Your task to perform on an android device: Open Reddit.com Image 0: 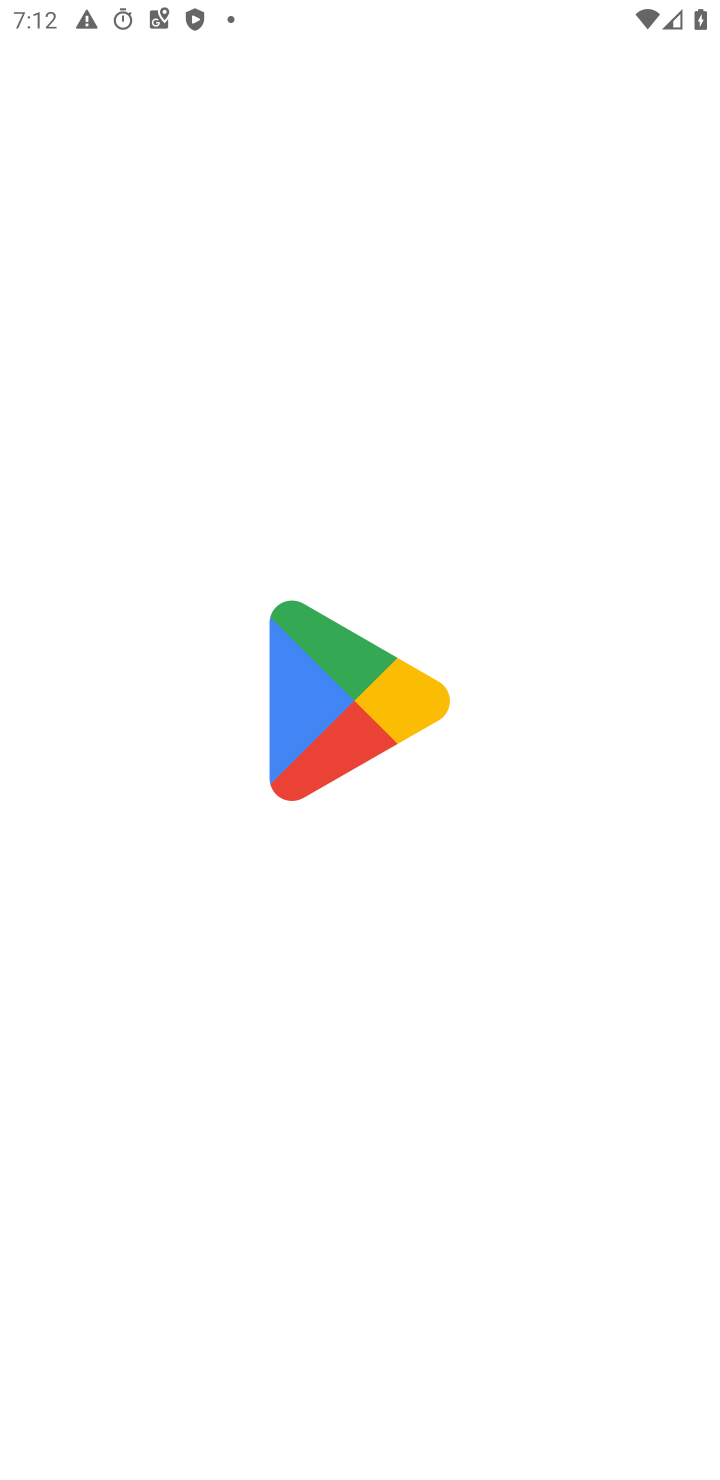
Step 0: press home button
Your task to perform on an android device: Open Reddit.com Image 1: 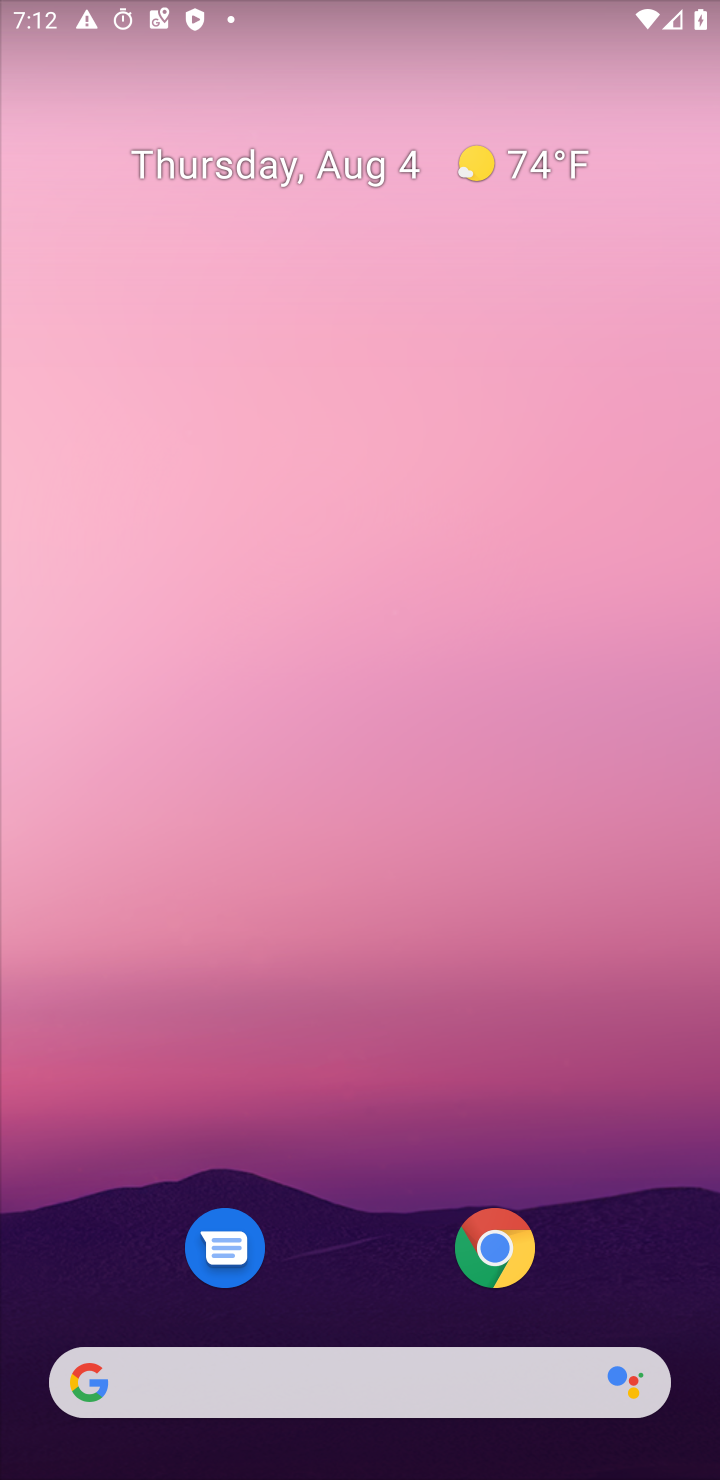
Step 1: drag from (406, 1379) to (506, 174)
Your task to perform on an android device: Open Reddit.com Image 2: 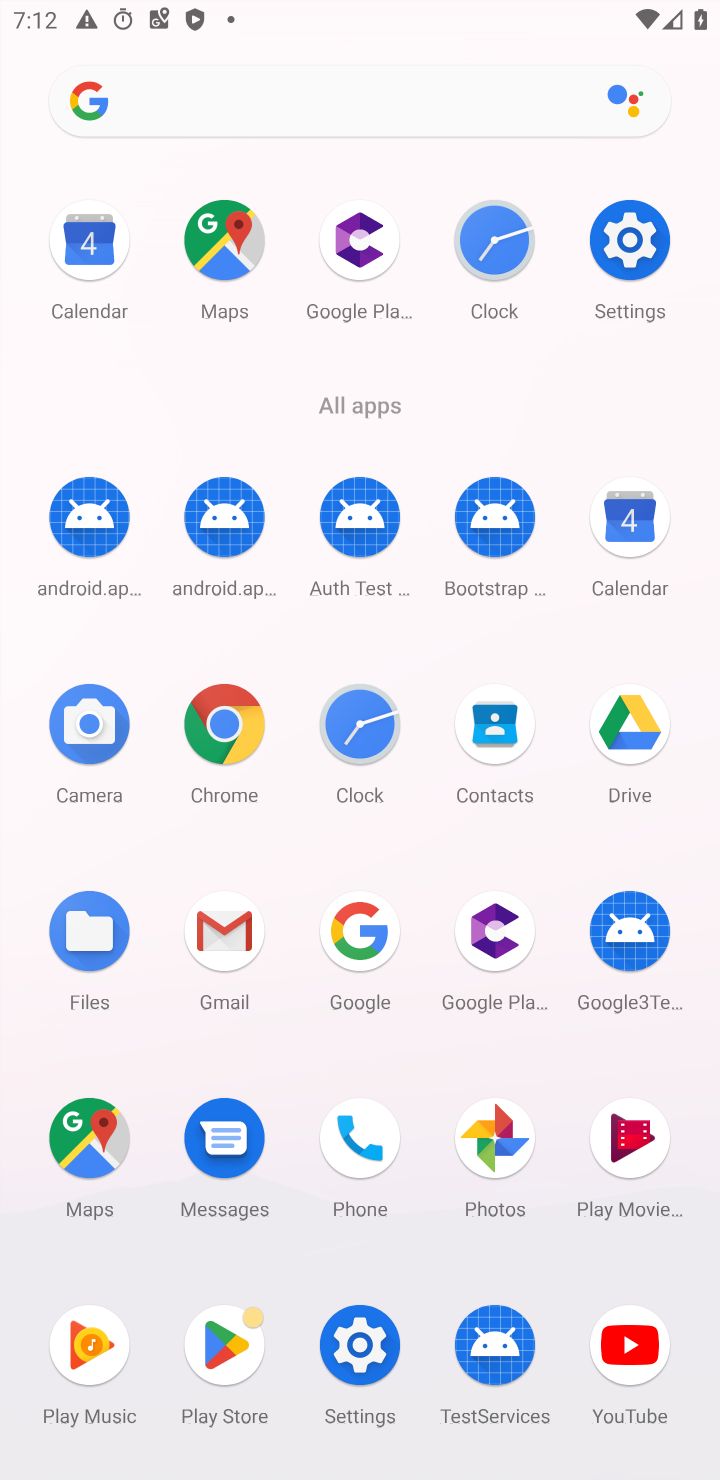
Step 2: click (606, 240)
Your task to perform on an android device: Open Reddit.com Image 3: 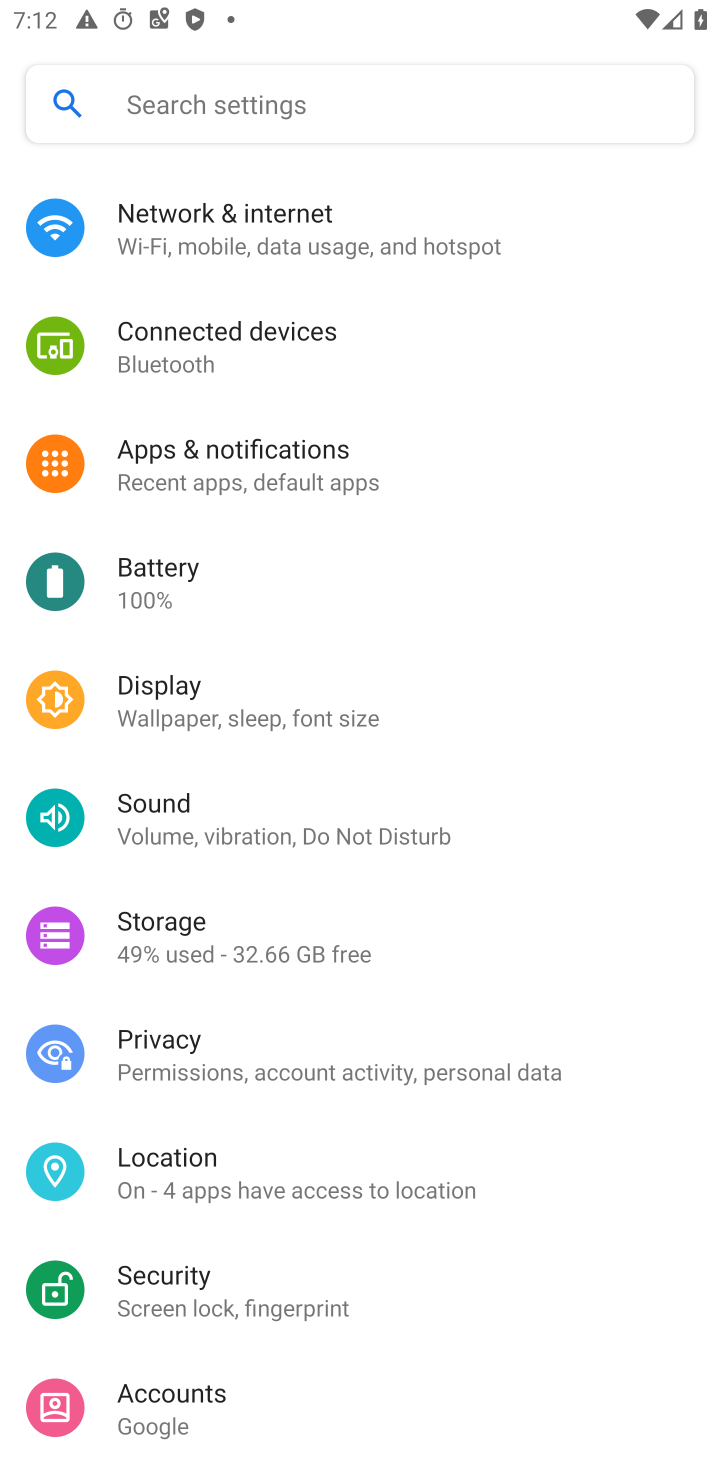
Step 3: press home button
Your task to perform on an android device: Open Reddit.com Image 4: 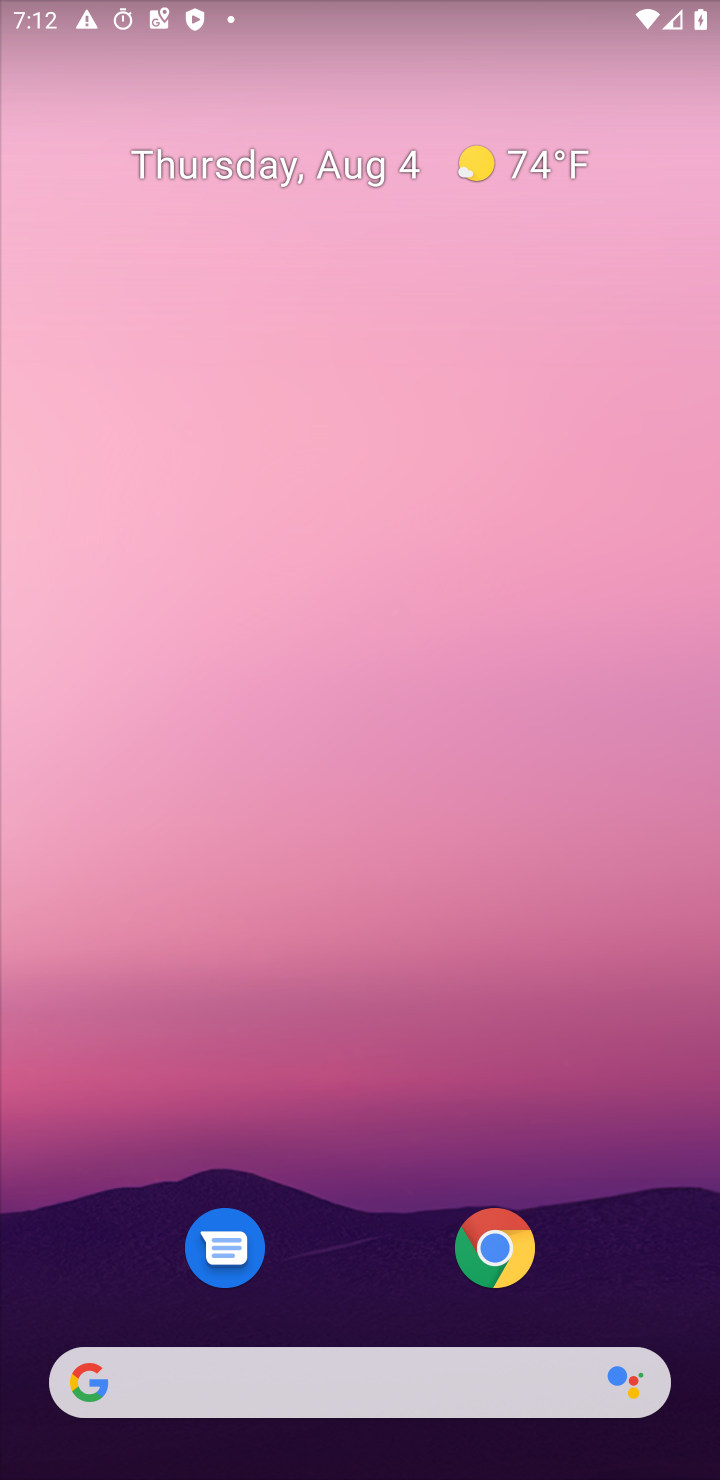
Step 4: drag from (447, 1056) to (446, 278)
Your task to perform on an android device: Open Reddit.com Image 5: 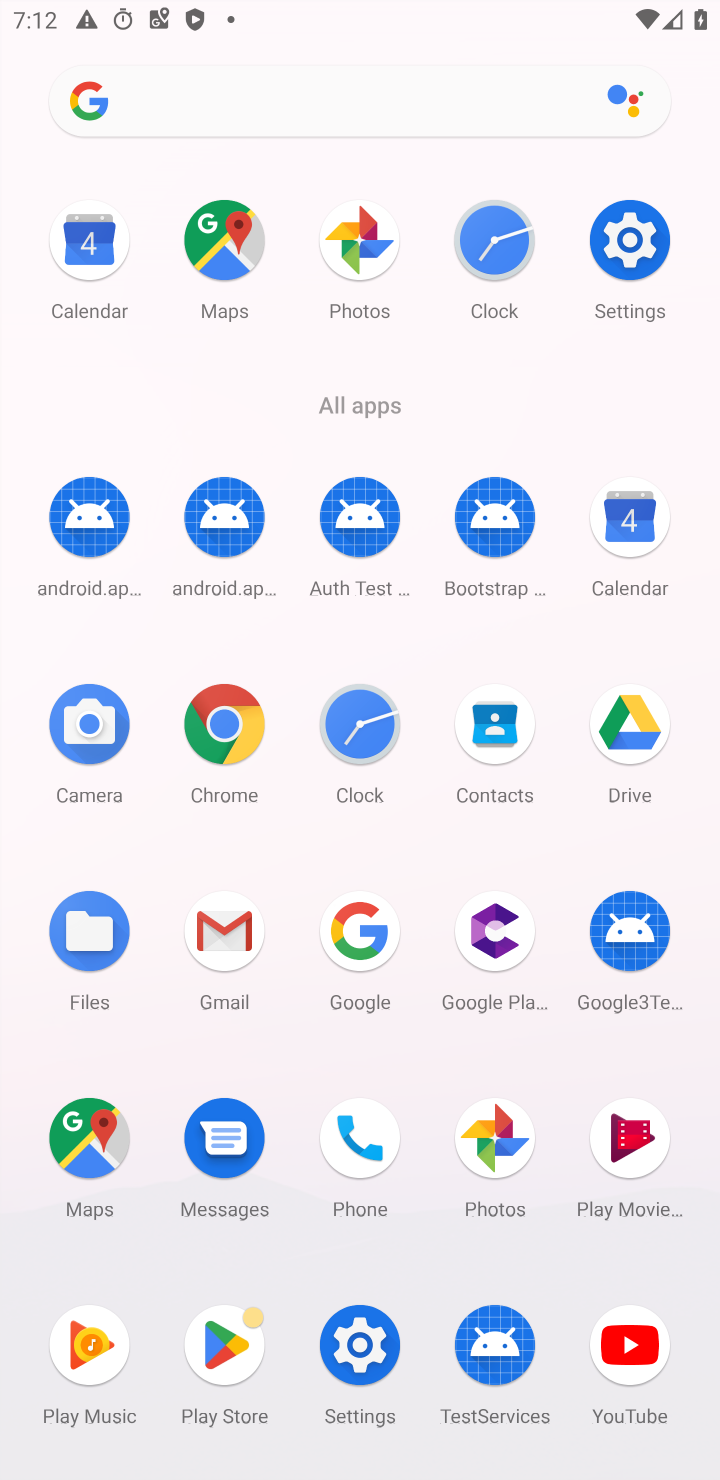
Step 5: click (219, 708)
Your task to perform on an android device: Open Reddit.com Image 6: 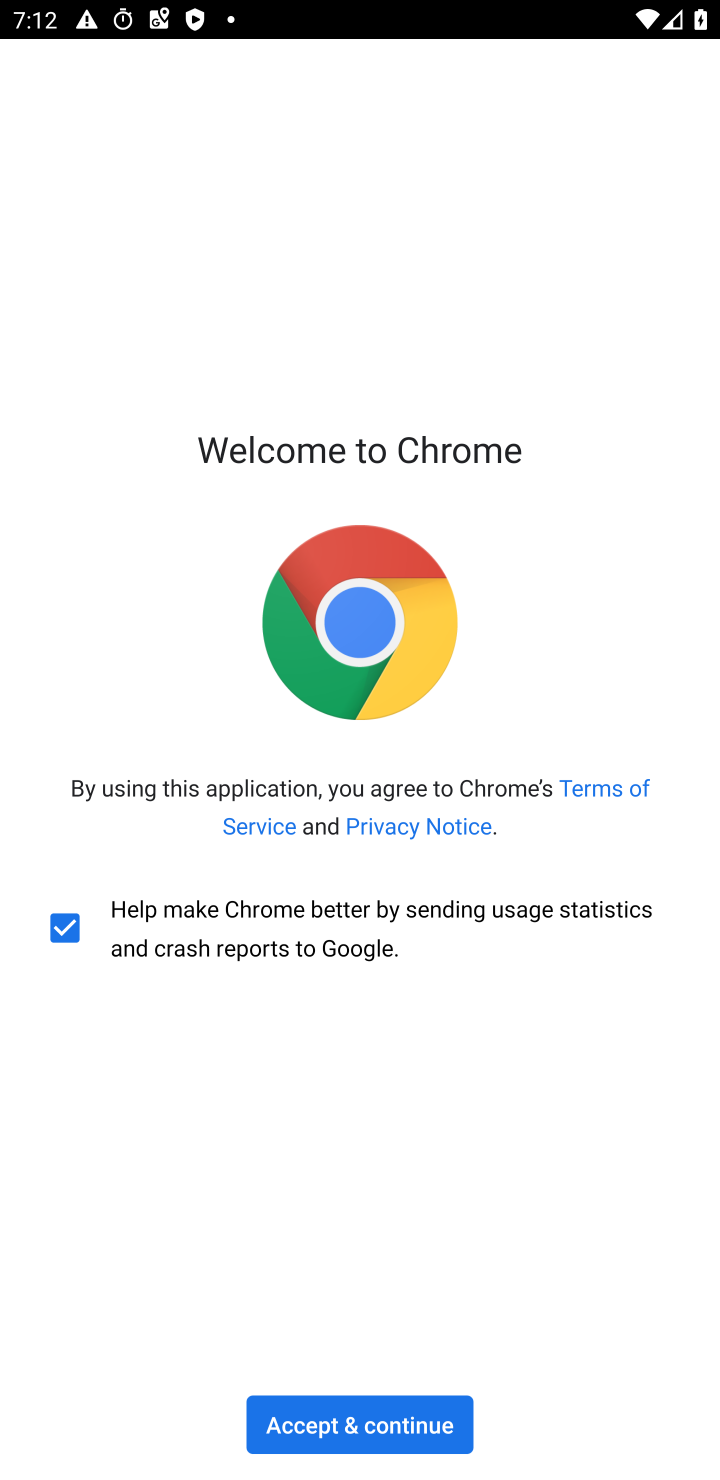
Step 6: click (330, 1400)
Your task to perform on an android device: Open Reddit.com Image 7: 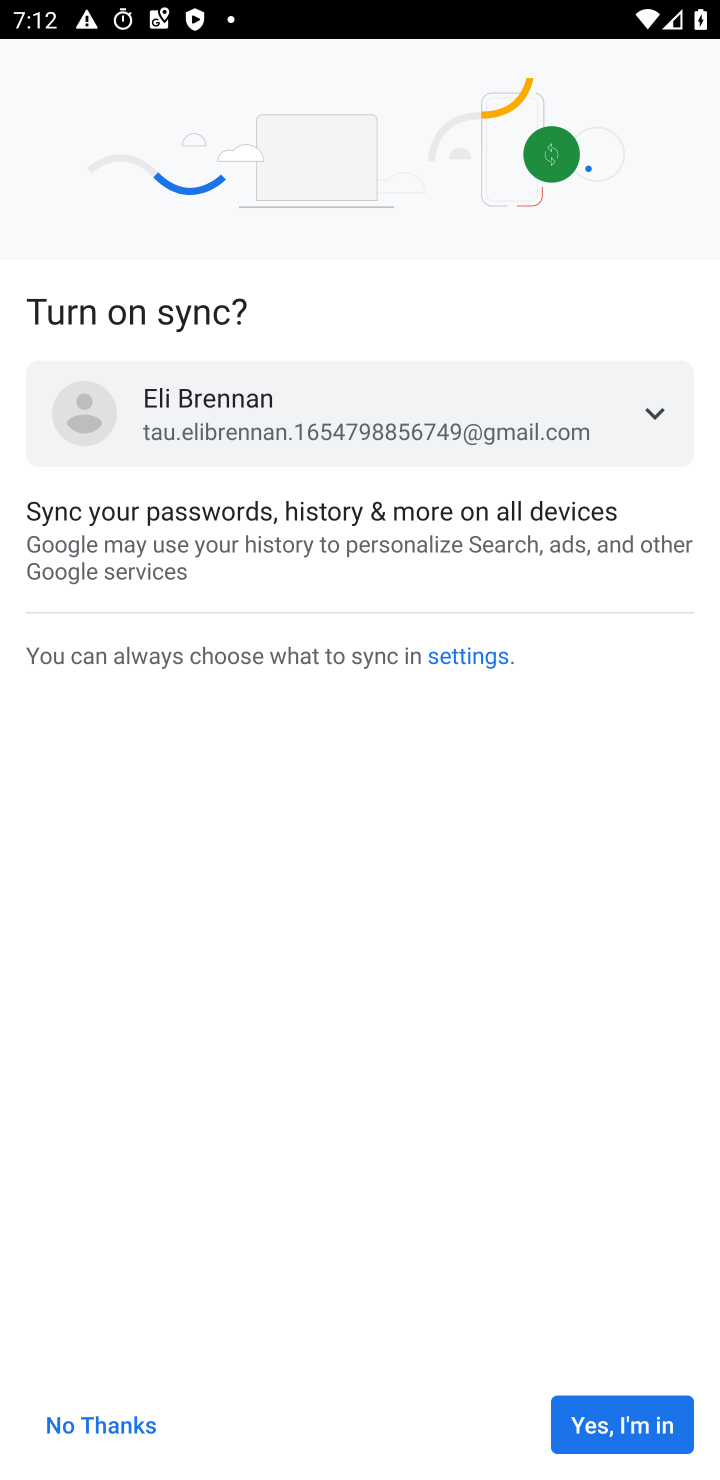
Step 7: click (618, 1417)
Your task to perform on an android device: Open Reddit.com Image 8: 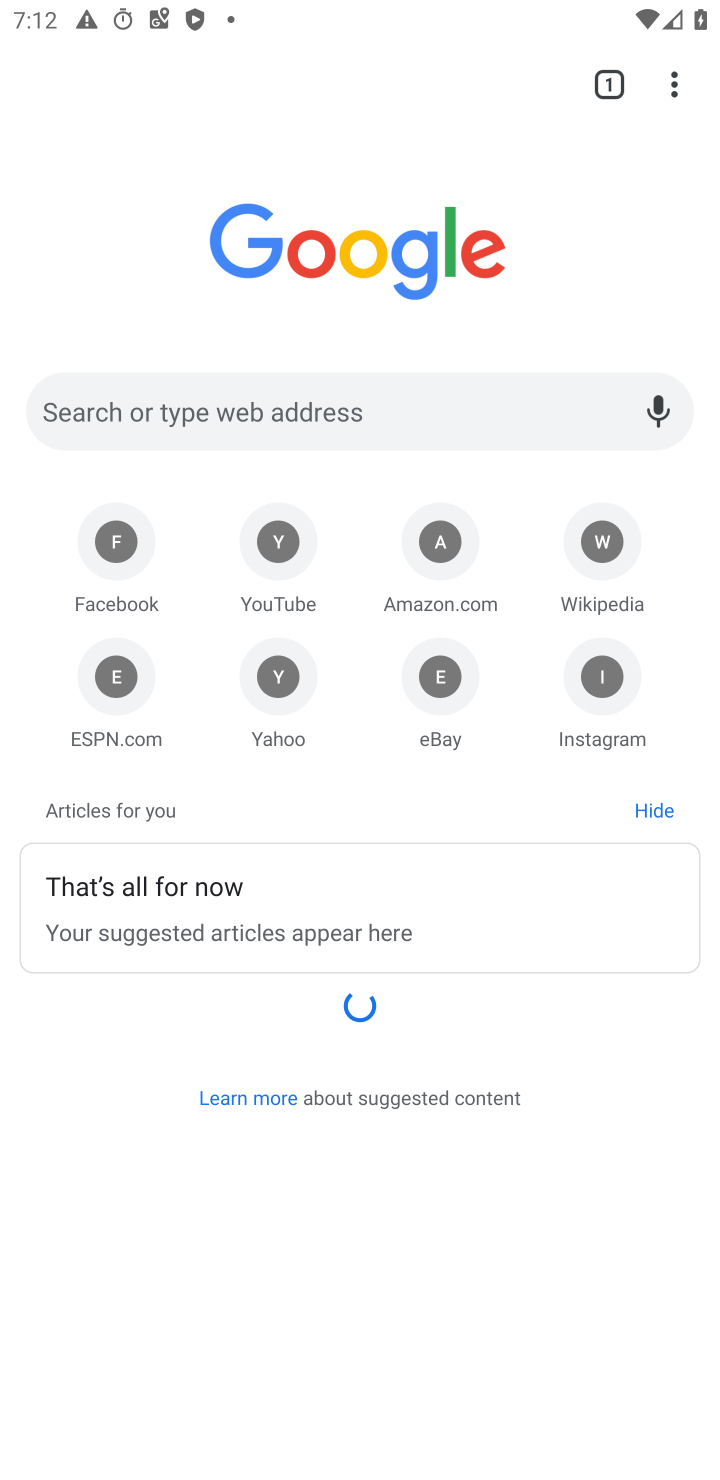
Step 8: click (295, 391)
Your task to perform on an android device: Open Reddit.com Image 9: 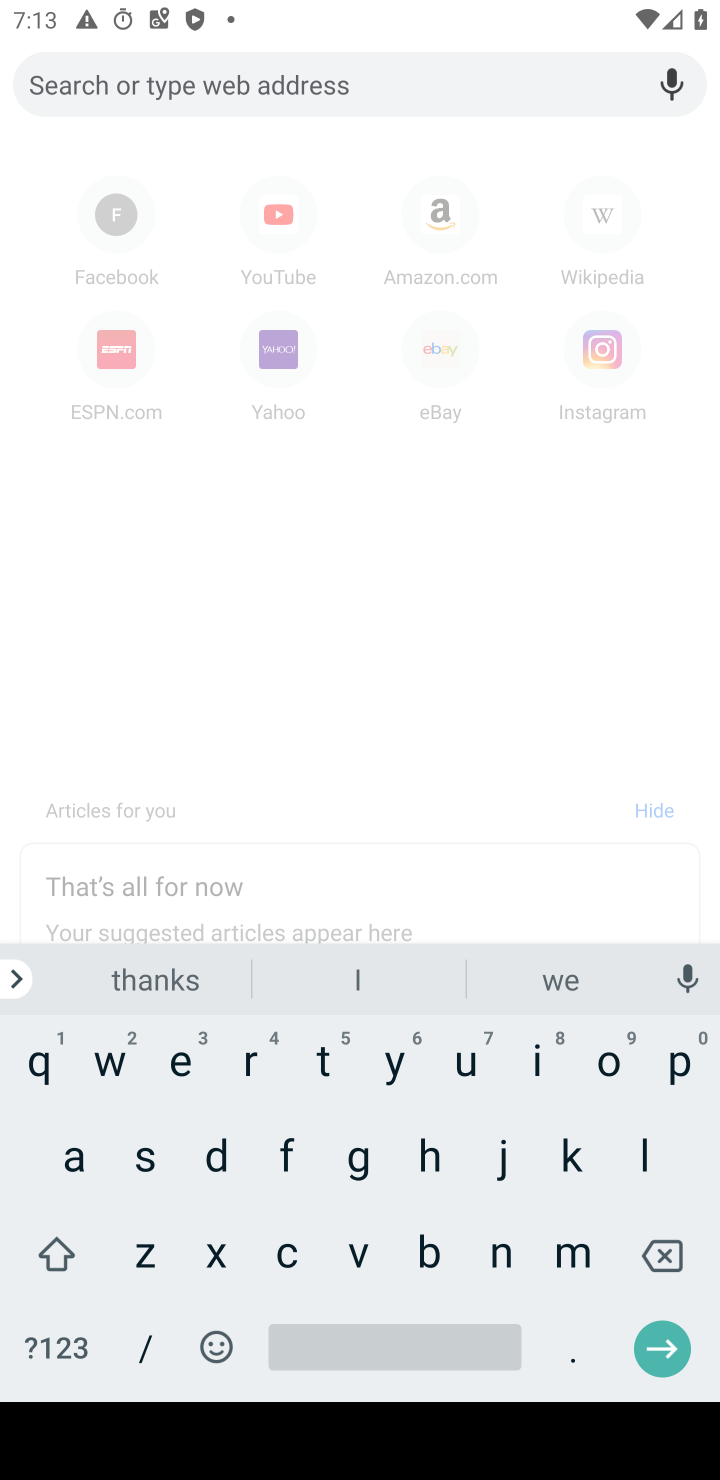
Step 9: click (250, 1067)
Your task to perform on an android device: Open Reddit.com Image 10: 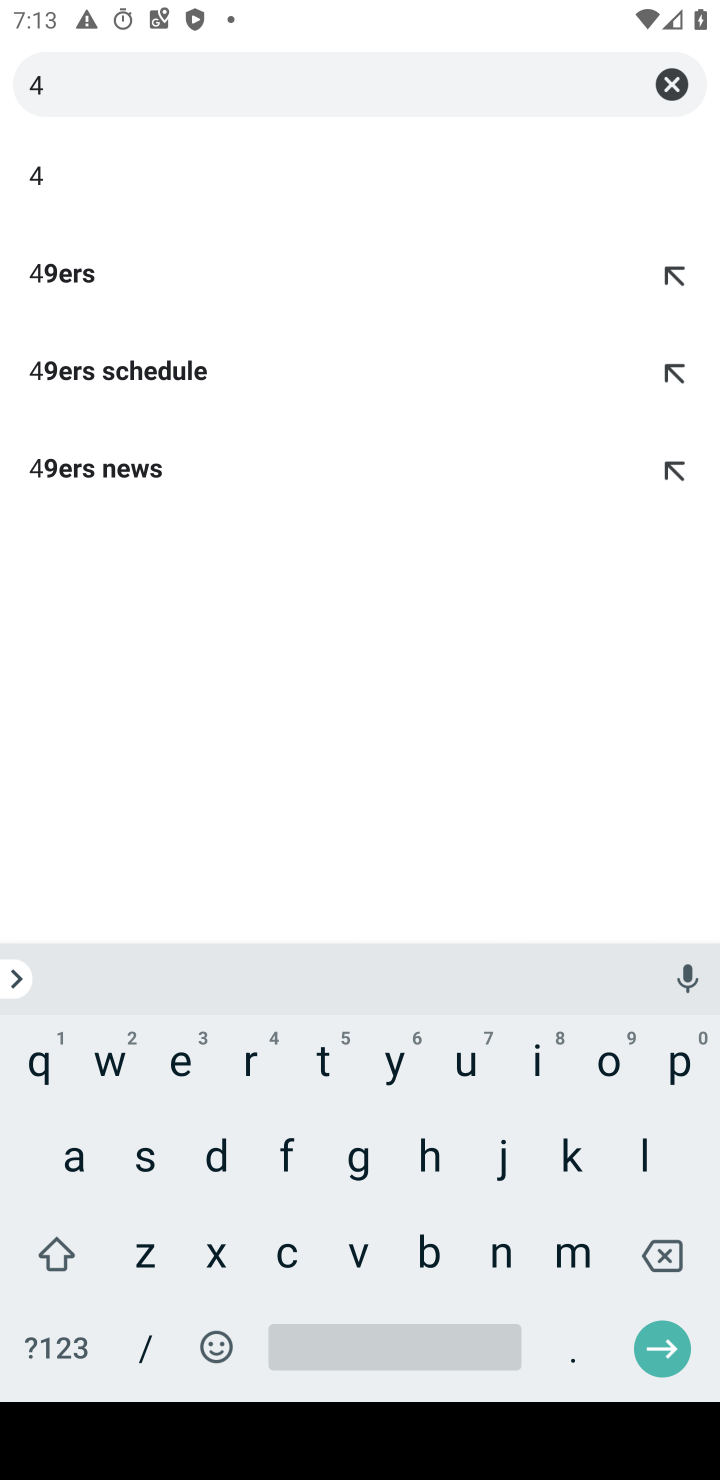
Step 10: click (675, 1265)
Your task to perform on an android device: Open Reddit.com Image 11: 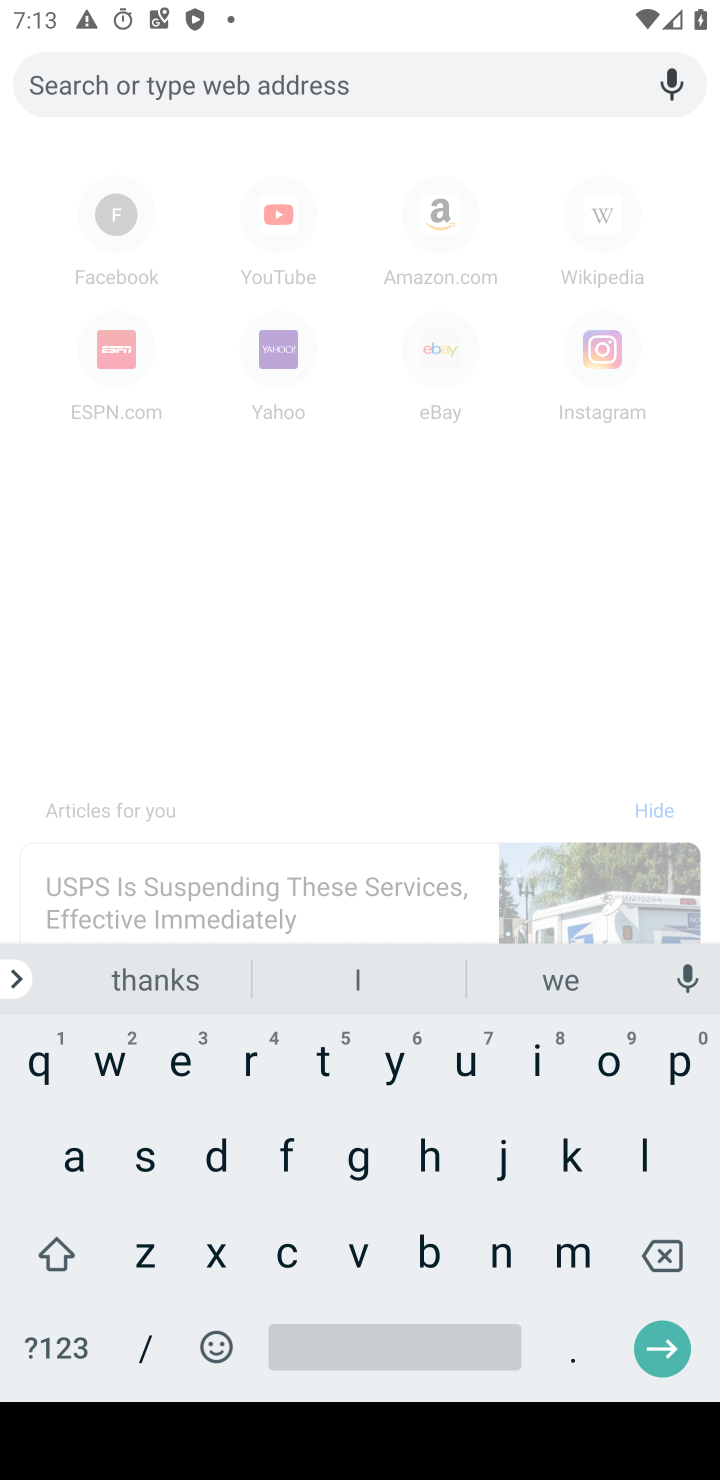
Step 11: click (247, 1067)
Your task to perform on an android device: Open Reddit.com Image 12: 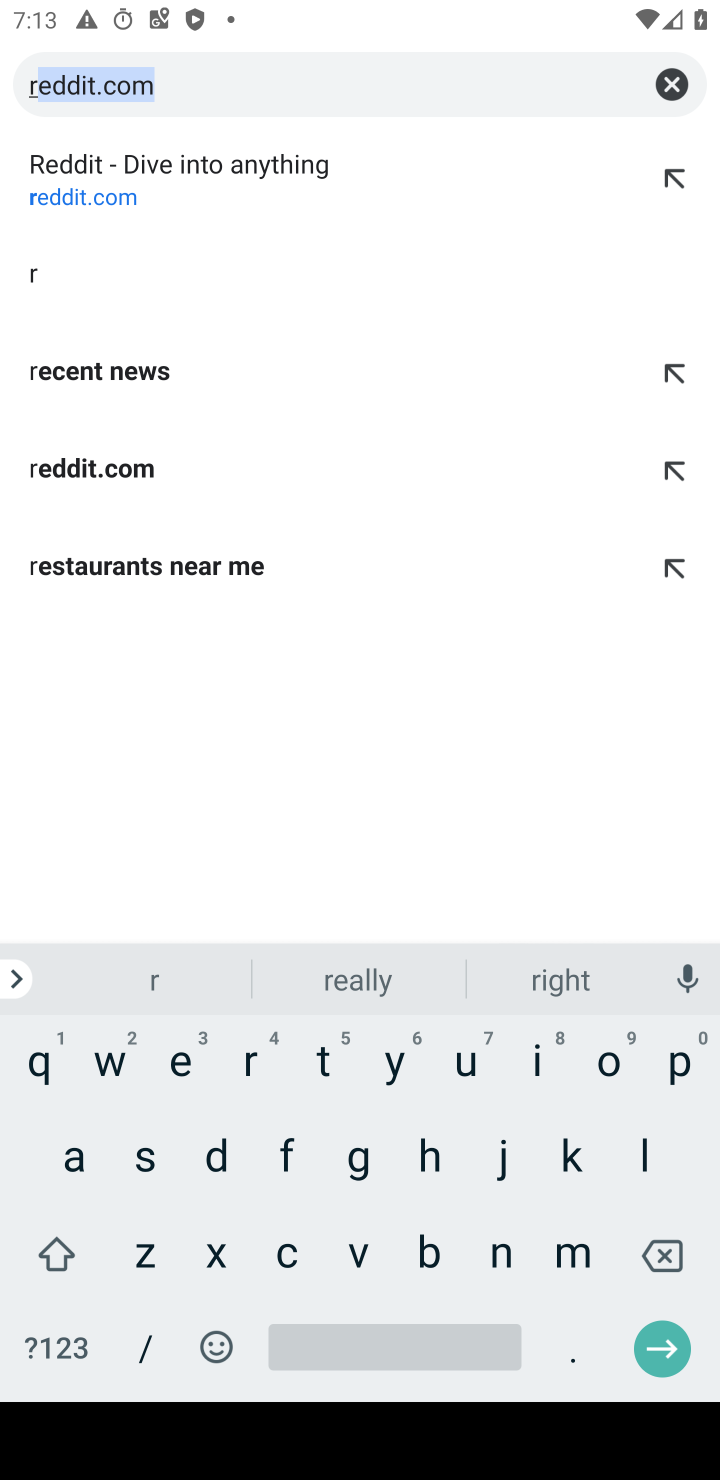
Step 12: click (244, 96)
Your task to perform on an android device: Open Reddit.com Image 13: 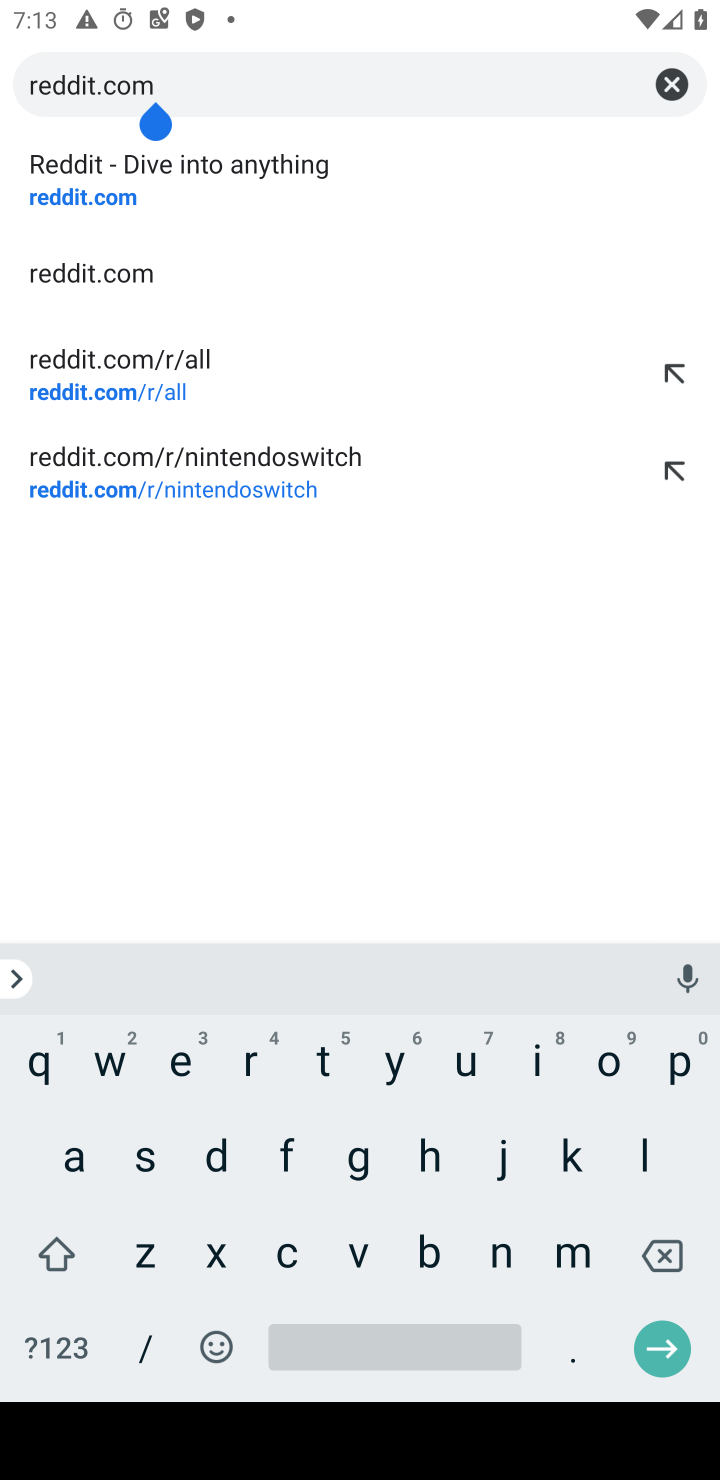
Step 13: click (669, 1330)
Your task to perform on an android device: Open Reddit.com Image 14: 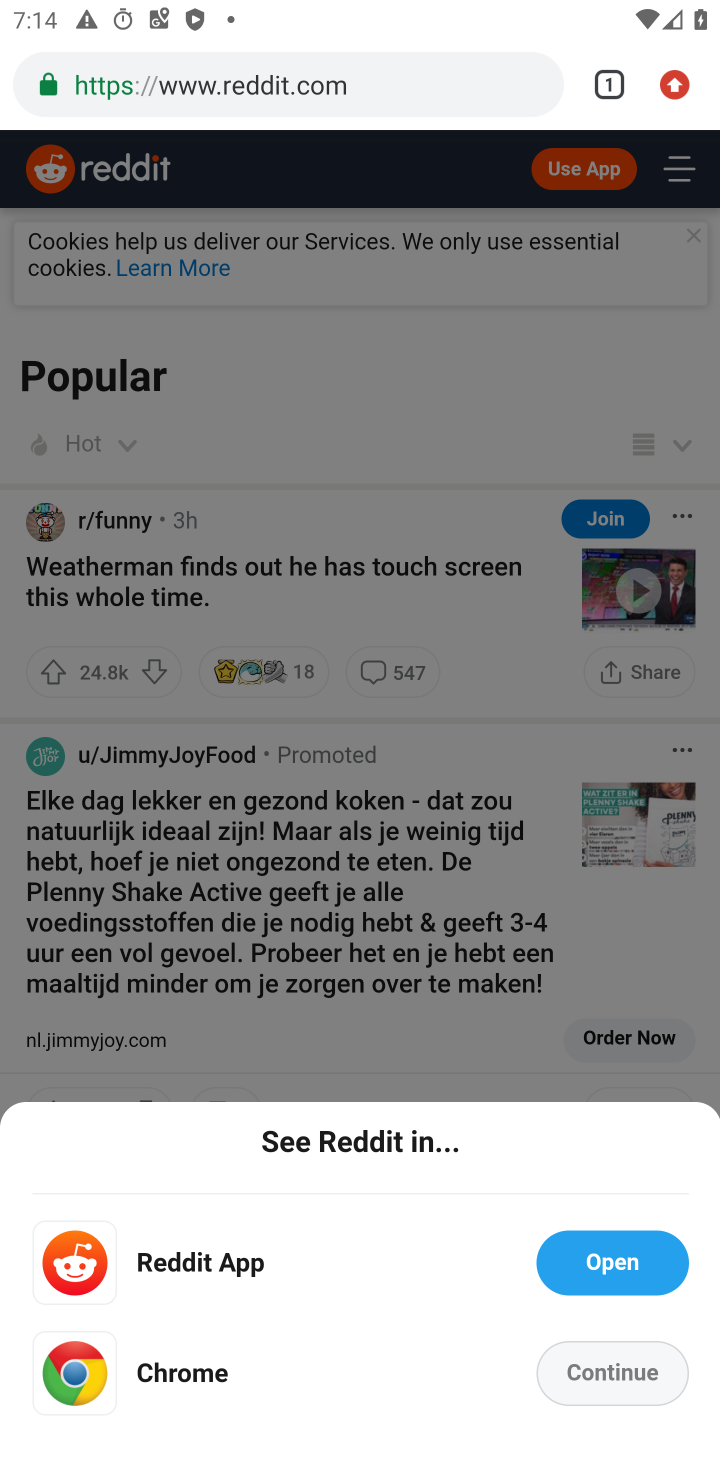
Step 14: click (605, 1325)
Your task to perform on an android device: Open Reddit.com Image 15: 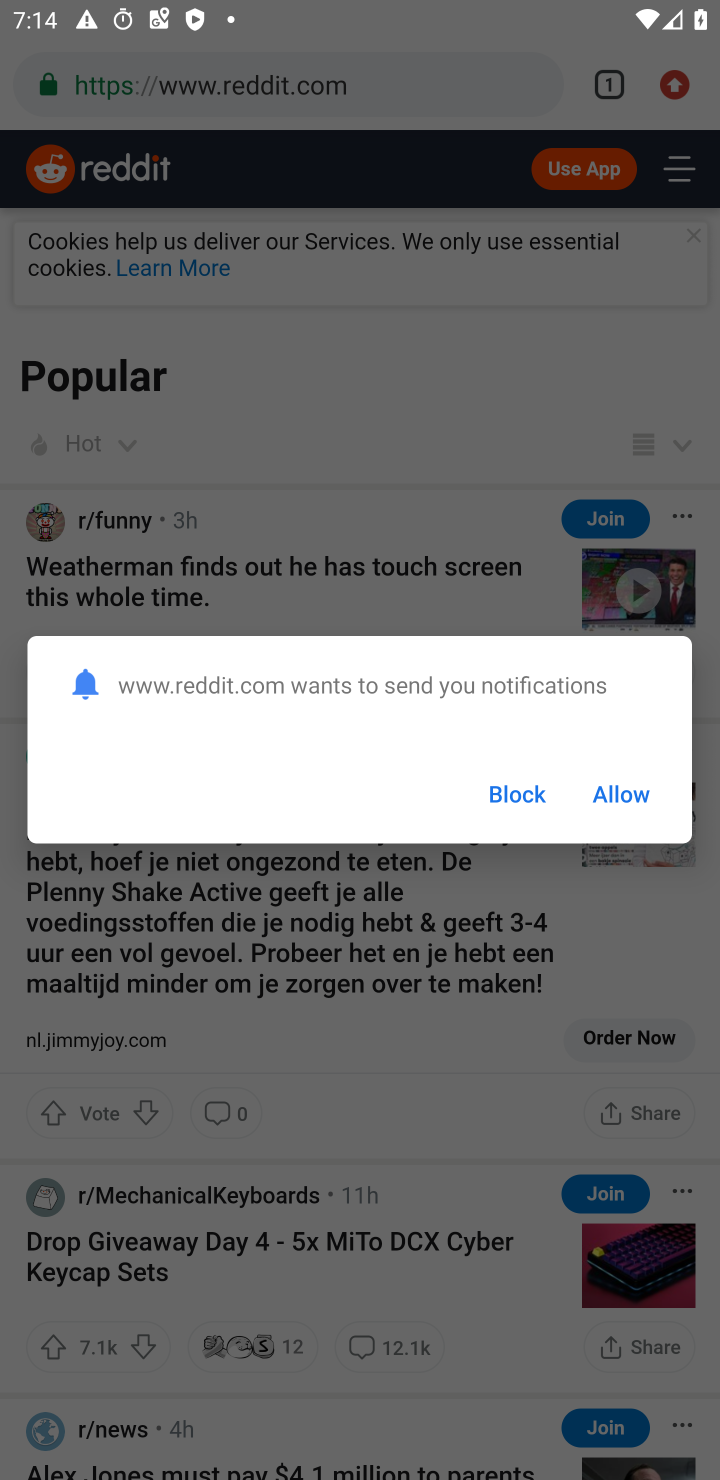
Step 15: click (521, 792)
Your task to perform on an android device: Open Reddit.com Image 16: 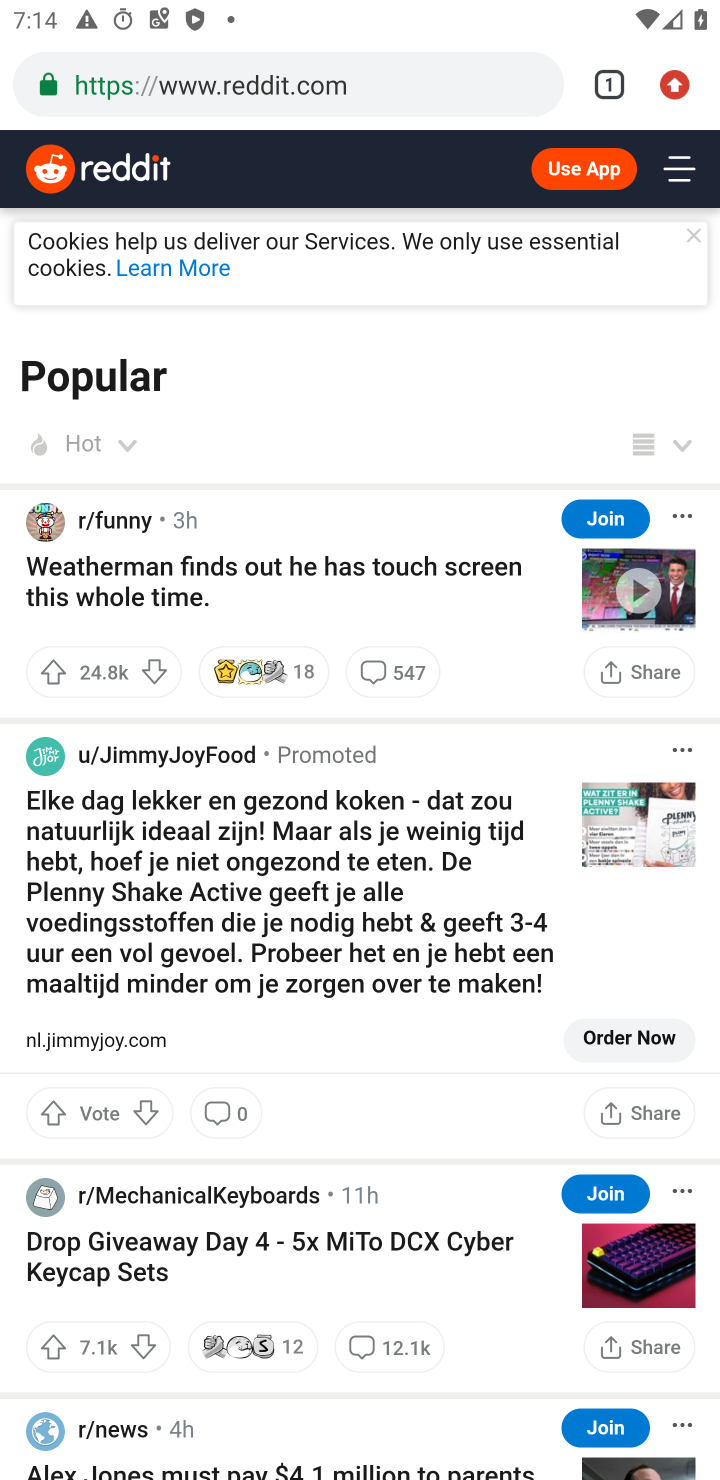
Step 16: task complete